Your task to perform on an android device: Open ESPN.com Image 0: 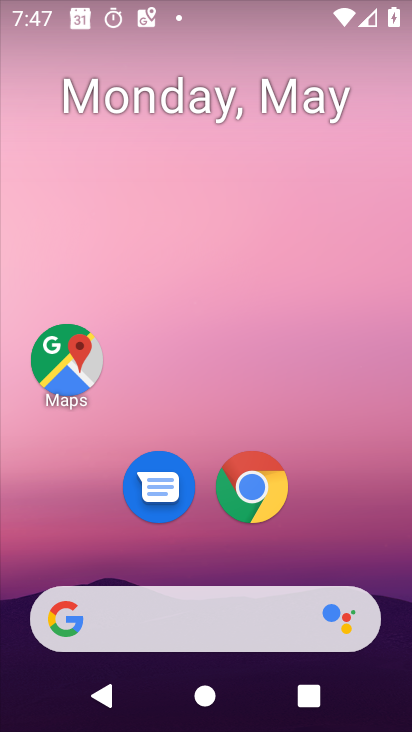
Step 0: press home button
Your task to perform on an android device: Open ESPN.com Image 1: 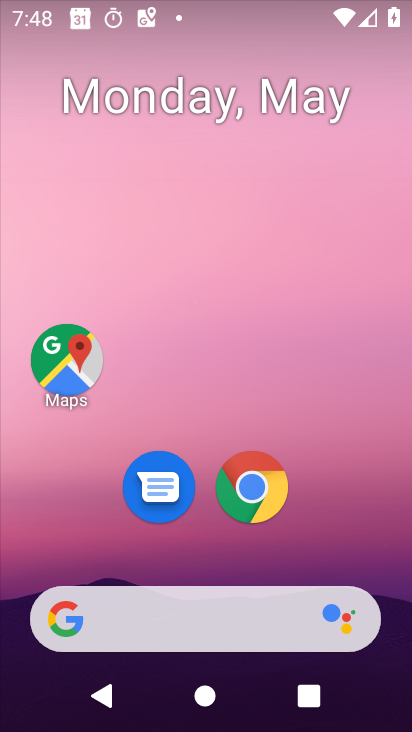
Step 1: drag from (242, 663) to (306, 69)
Your task to perform on an android device: Open ESPN.com Image 2: 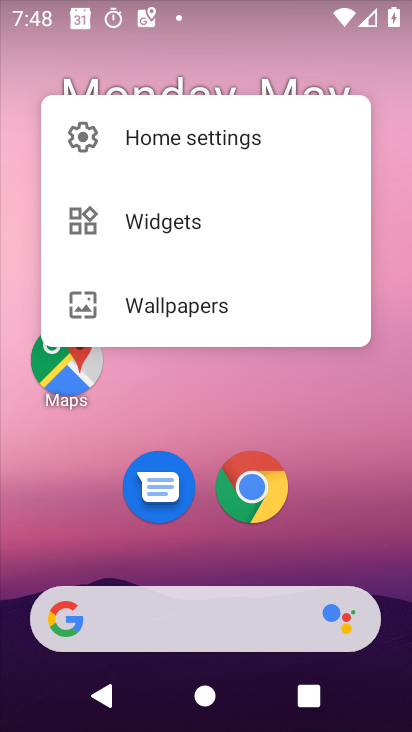
Step 2: click (302, 451)
Your task to perform on an android device: Open ESPN.com Image 3: 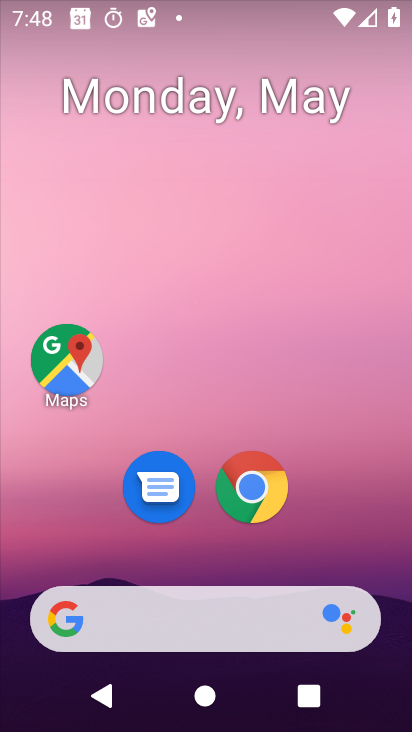
Step 3: click (262, 467)
Your task to perform on an android device: Open ESPN.com Image 4: 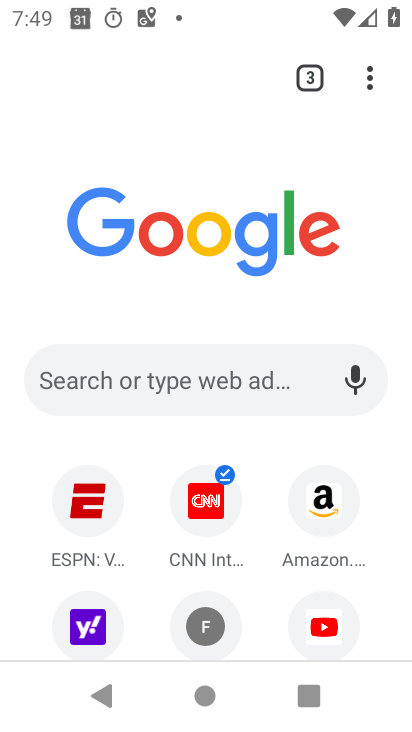
Step 4: click (98, 501)
Your task to perform on an android device: Open ESPN.com Image 5: 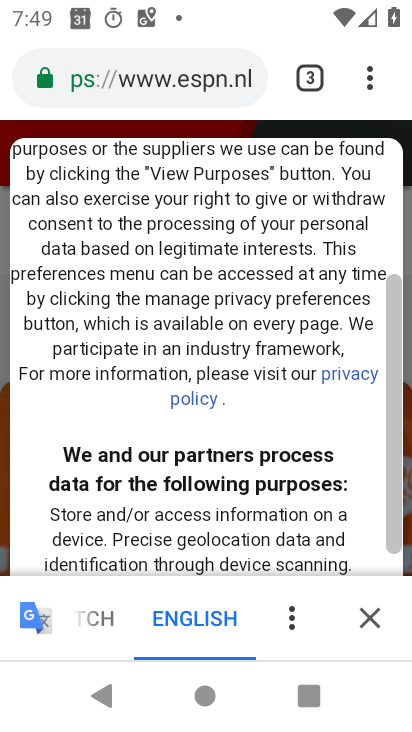
Step 5: click (230, 458)
Your task to perform on an android device: Open ESPN.com Image 6: 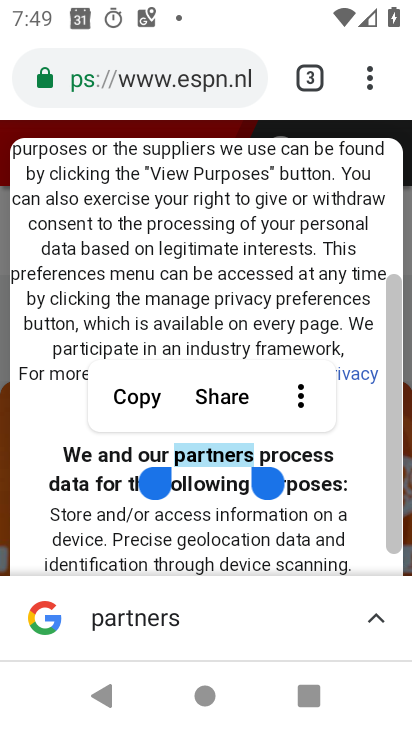
Step 6: drag from (401, 405) to (405, 511)
Your task to perform on an android device: Open ESPN.com Image 7: 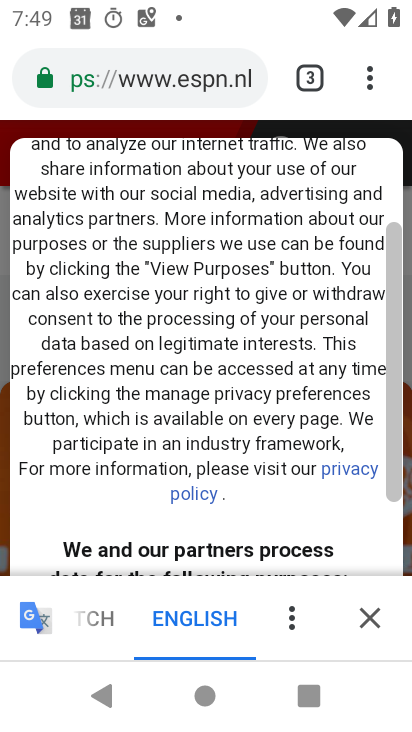
Step 7: drag from (384, 490) to (383, 589)
Your task to perform on an android device: Open ESPN.com Image 8: 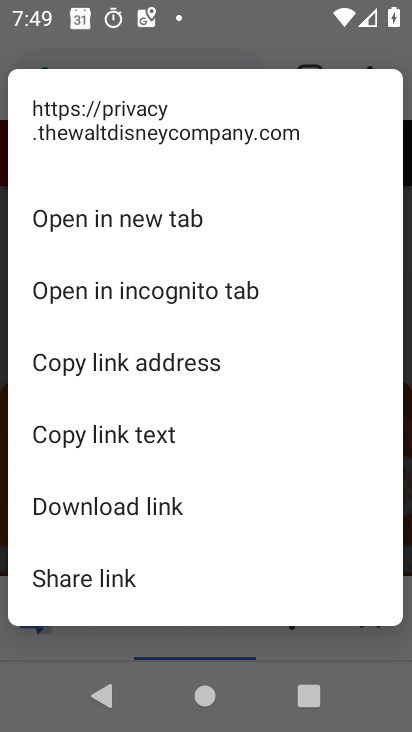
Step 8: press back button
Your task to perform on an android device: Open ESPN.com Image 9: 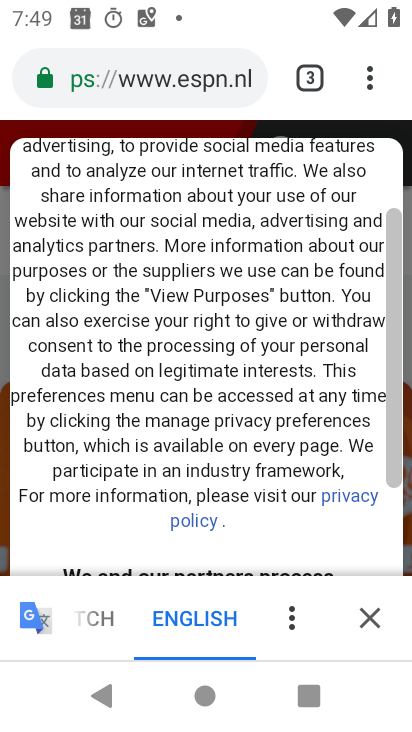
Step 9: drag from (399, 348) to (392, 500)
Your task to perform on an android device: Open ESPN.com Image 10: 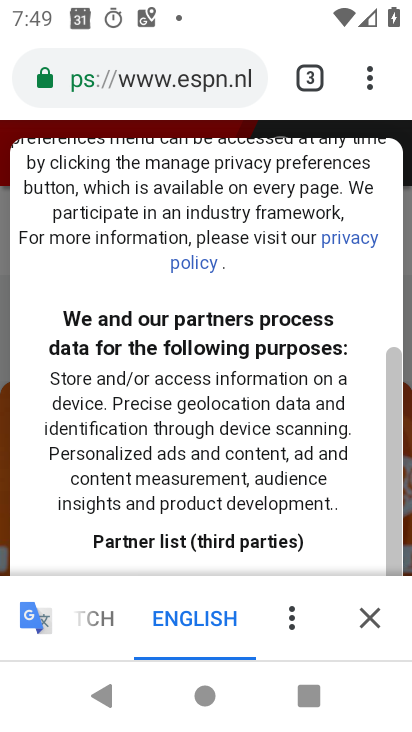
Step 10: drag from (185, 496) to (239, 125)
Your task to perform on an android device: Open ESPN.com Image 11: 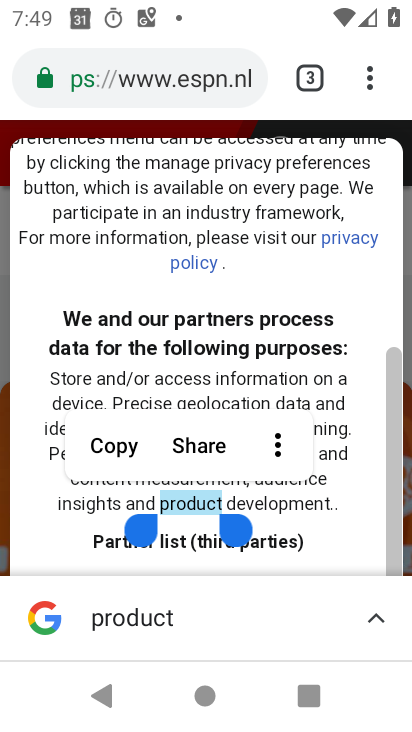
Step 11: click (298, 276)
Your task to perform on an android device: Open ESPN.com Image 12: 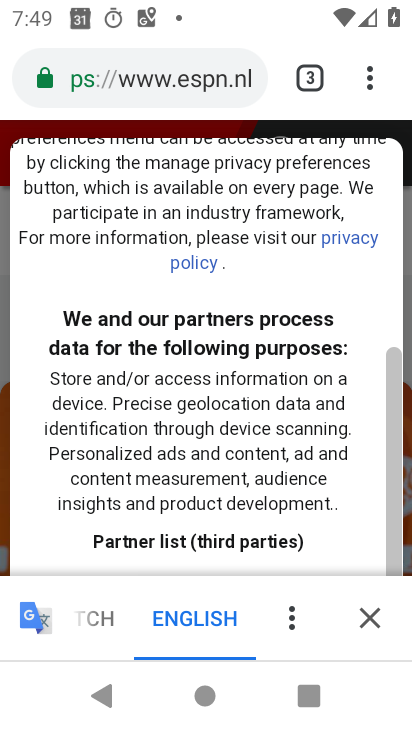
Step 12: click (375, 609)
Your task to perform on an android device: Open ESPN.com Image 13: 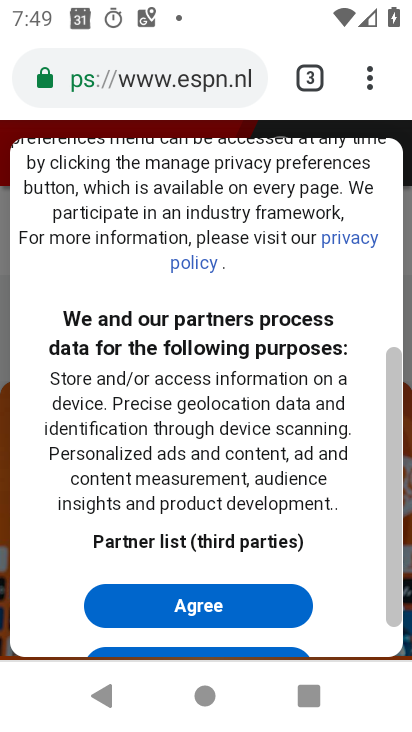
Step 13: click (165, 594)
Your task to perform on an android device: Open ESPN.com Image 14: 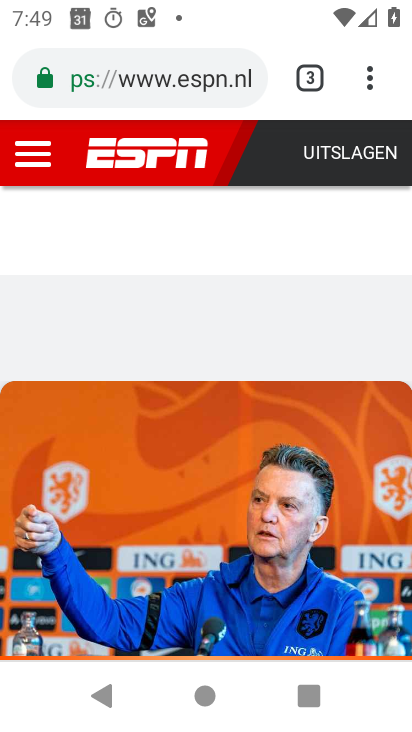
Step 14: task complete